Your task to perform on an android device: Turn on the flashlight Image 0: 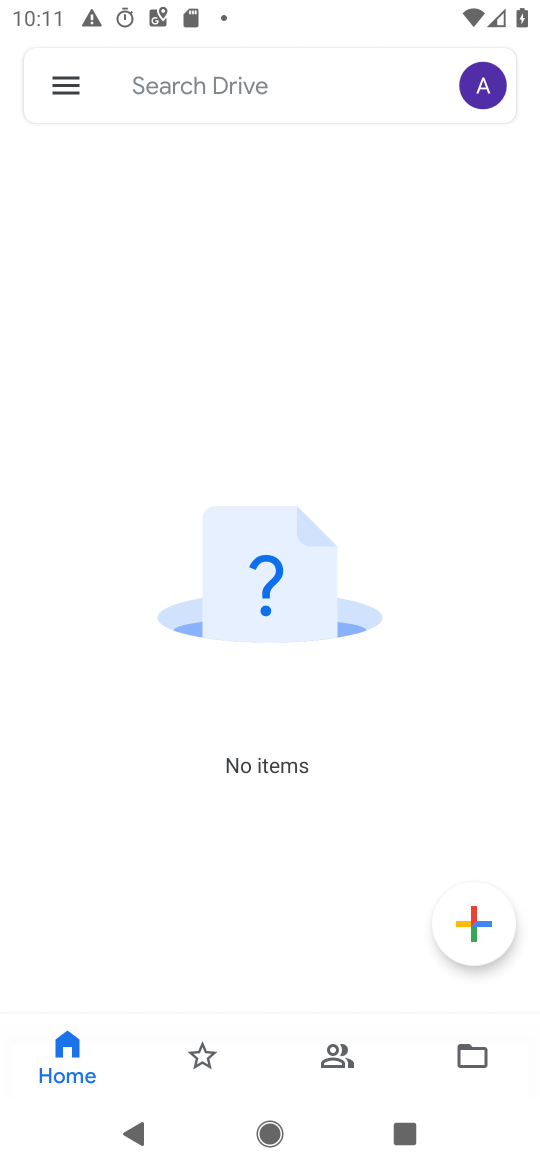
Step 0: press home button
Your task to perform on an android device: Turn on the flashlight Image 1: 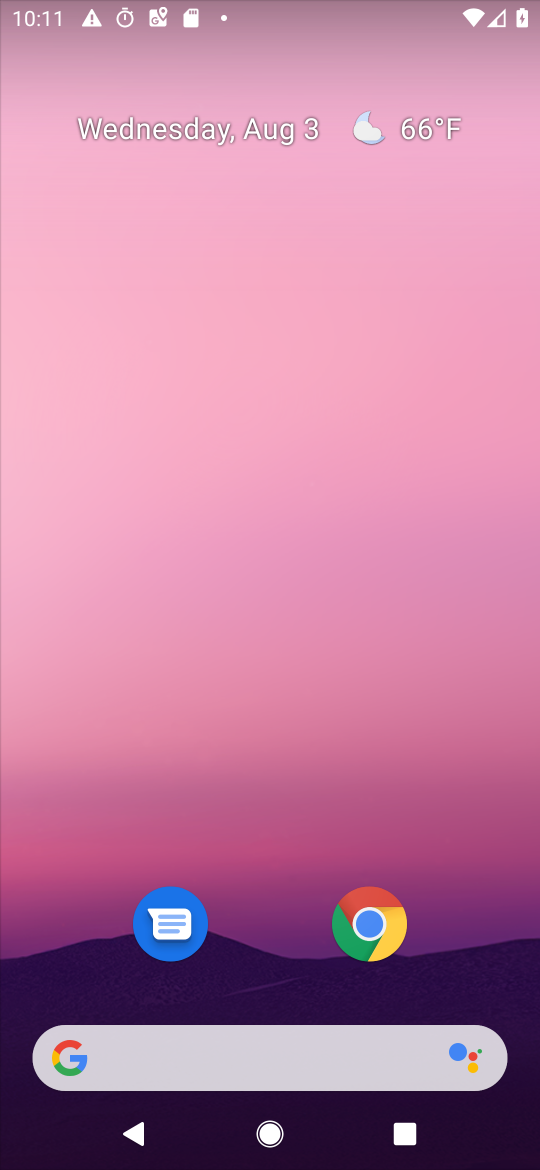
Step 1: drag from (278, 987) to (352, 178)
Your task to perform on an android device: Turn on the flashlight Image 2: 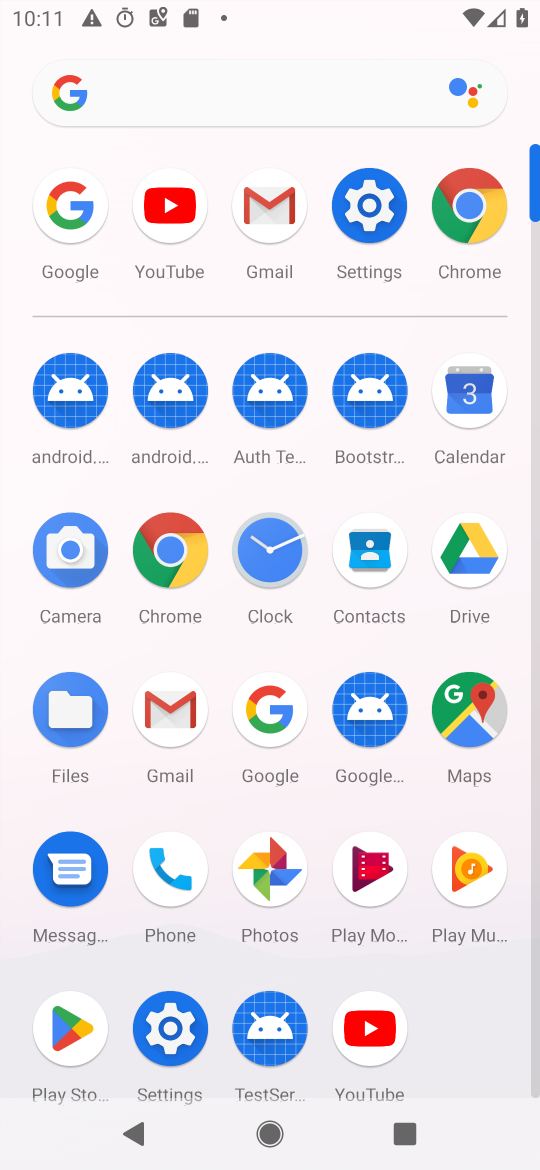
Step 2: click (358, 200)
Your task to perform on an android device: Turn on the flashlight Image 3: 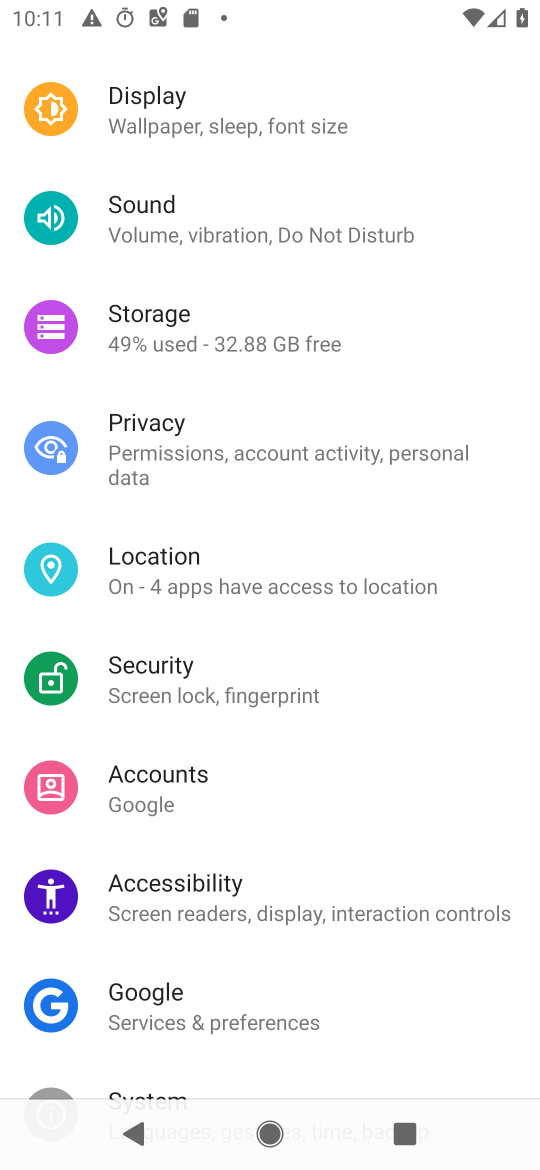
Step 3: drag from (208, 134) to (251, 855)
Your task to perform on an android device: Turn on the flashlight Image 4: 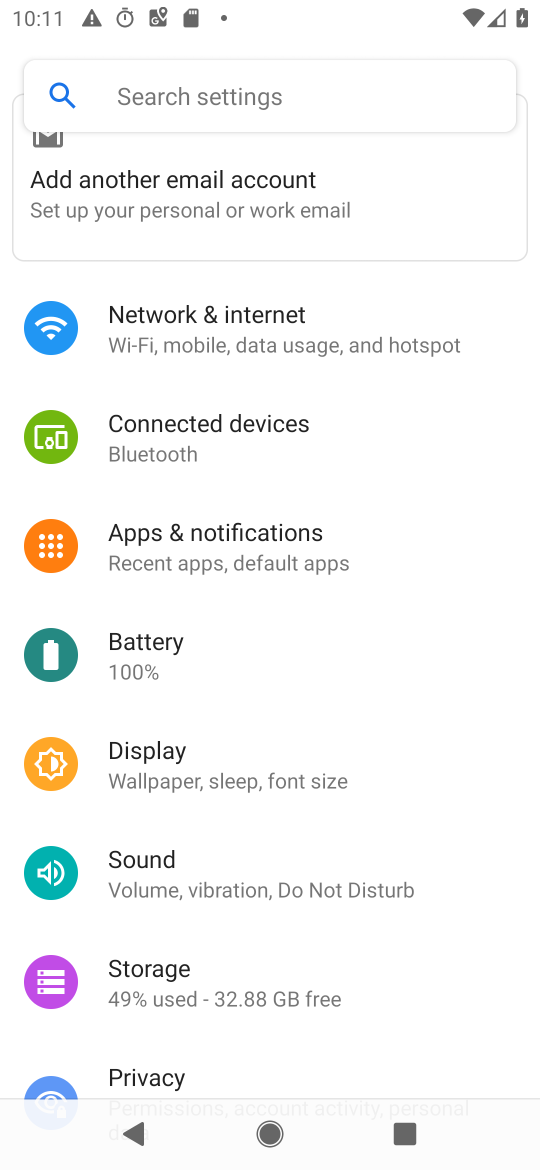
Step 4: click (186, 79)
Your task to perform on an android device: Turn on the flashlight Image 5: 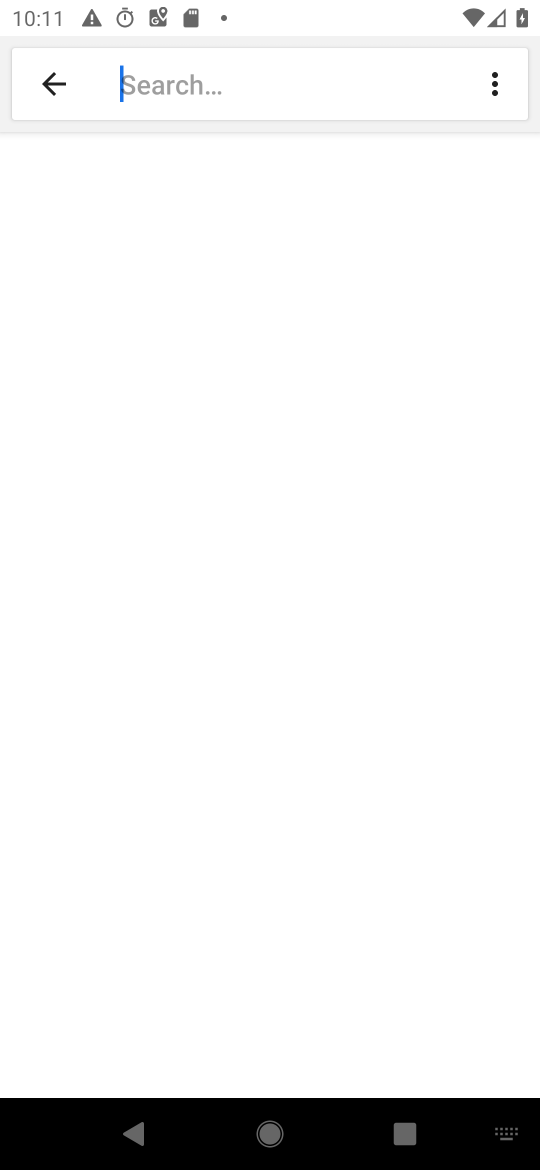
Step 5: type "flashlight"
Your task to perform on an android device: Turn on the flashlight Image 6: 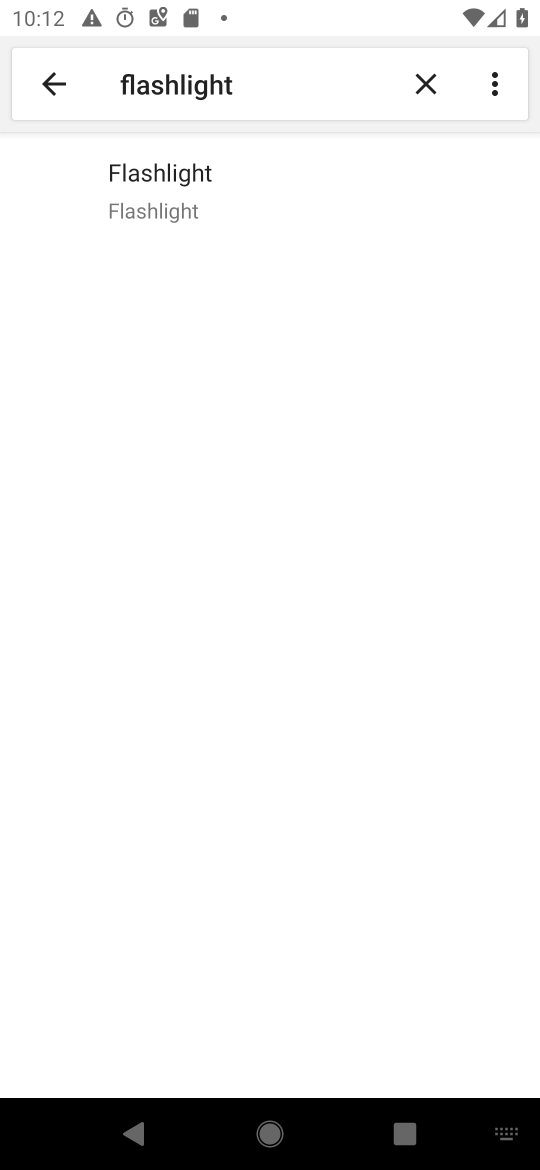
Step 6: click (162, 183)
Your task to perform on an android device: Turn on the flashlight Image 7: 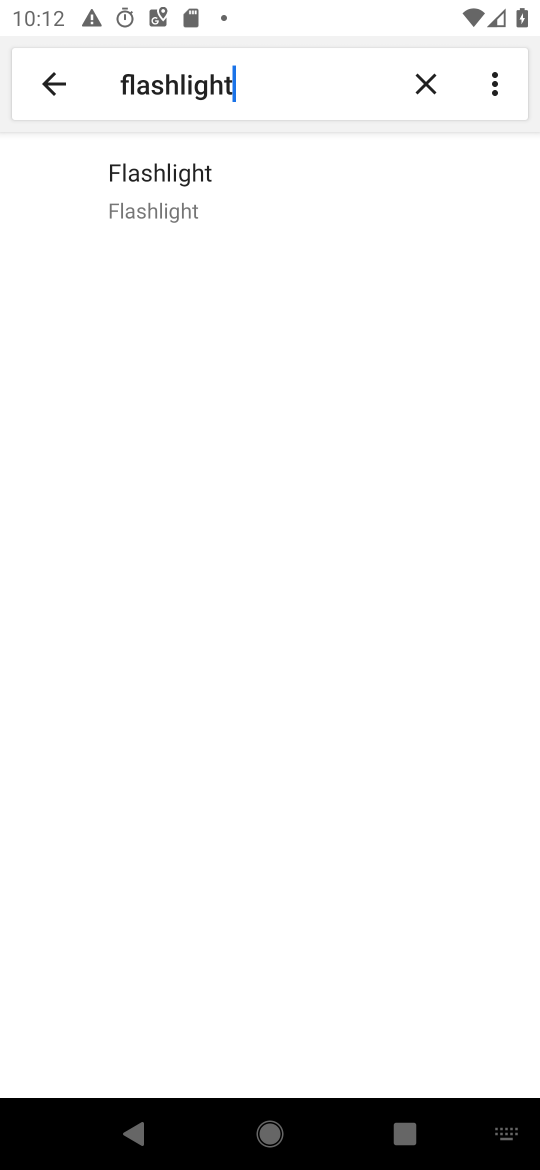
Step 7: task complete